Your task to perform on an android device: Go to Reddit.com Image 0: 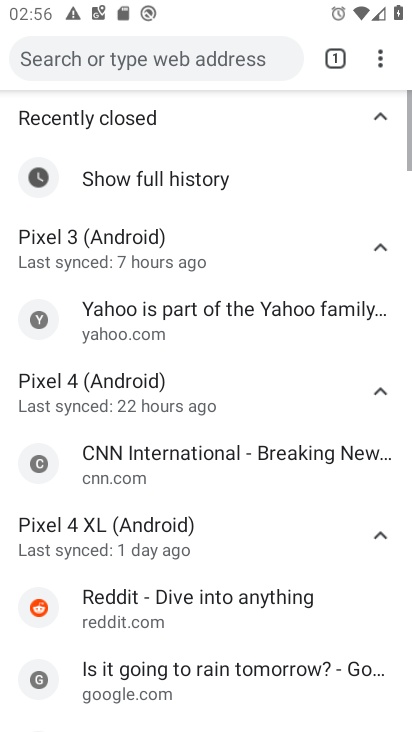
Step 0: press home button
Your task to perform on an android device: Go to Reddit.com Image 1: 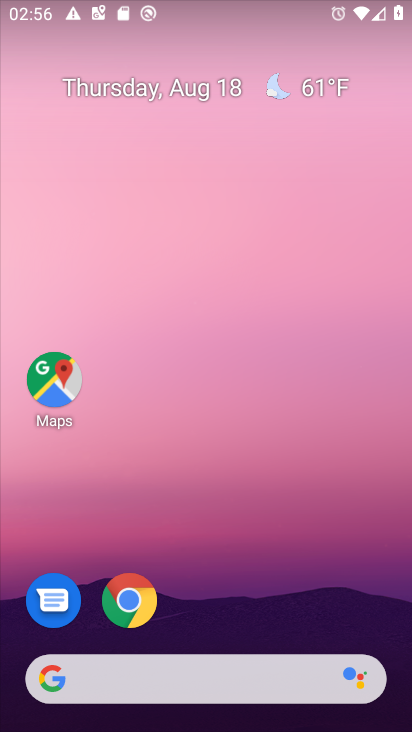
Step 1: click (43, 691)
Your task to perform on an android device: Go to Reddit.com Image 2: 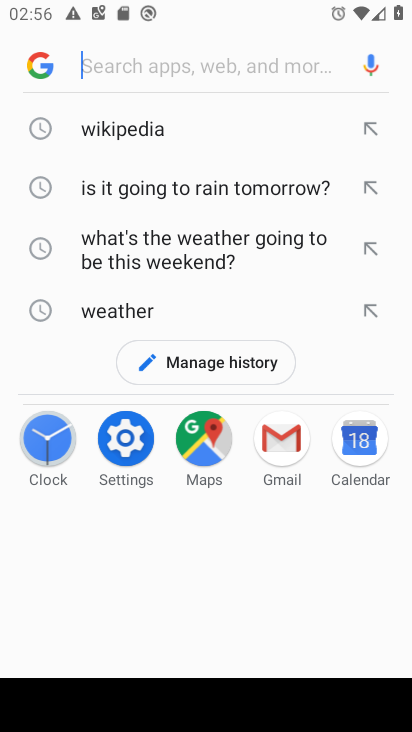
Step 2: type "Reddit.com"
Your task to perform on an android device: Go to Reddit.com Image 3: 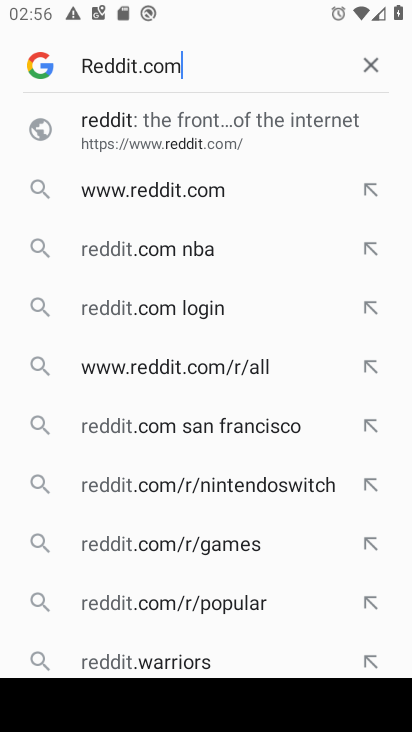
Step 3: press enter
Your task to perform on an android device: Go to Reddit.com Image 4: 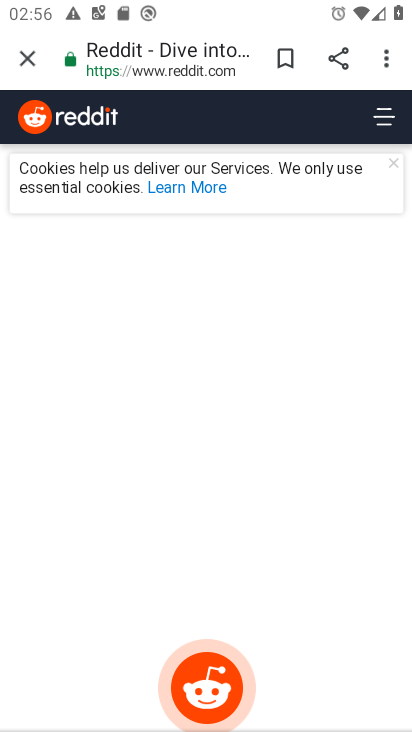
Step 4: task complete